Your task to perform on an android device: Go to CNN.com Image 0: 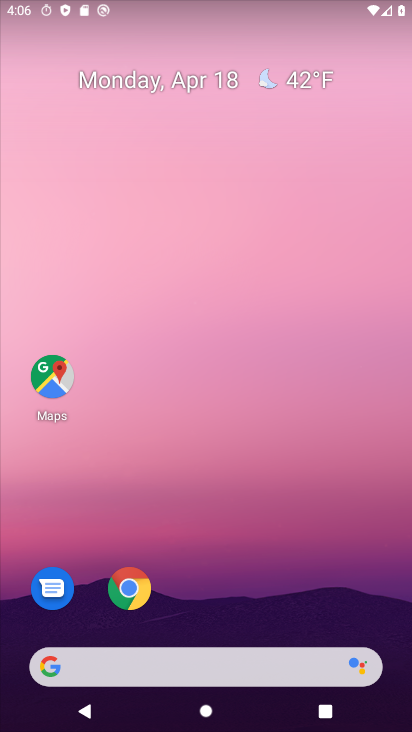
Step 0: click (126, 581)
Your task to perform on an android device: Go to CNN.com Image 1: 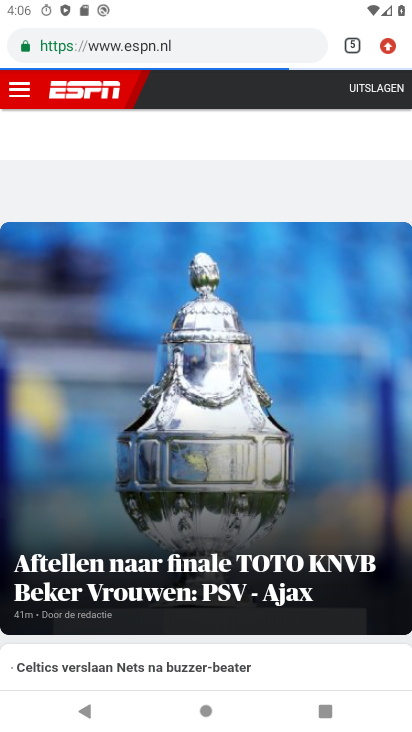
Step 1: click (348, 43)
Your task to perform on an android device: Go to CNN.com Image 2: 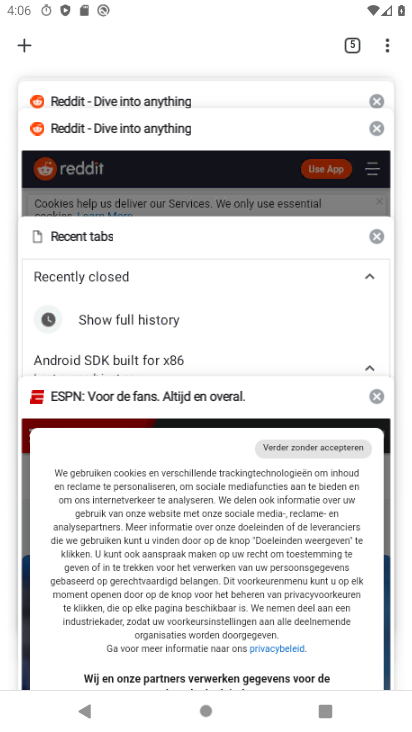
Step 2: click (30, 48)
Your task to perform on an android device: Go to CNN.com Image 3: 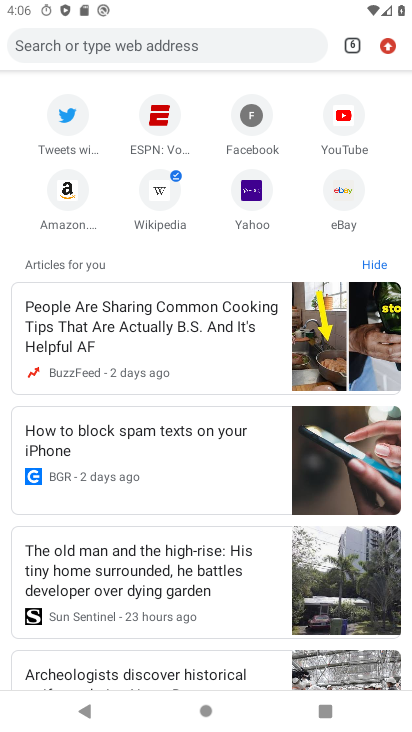
Step 3: click (191, 39)
Your task to perform on an android device: Go to CNN.com Image 4: 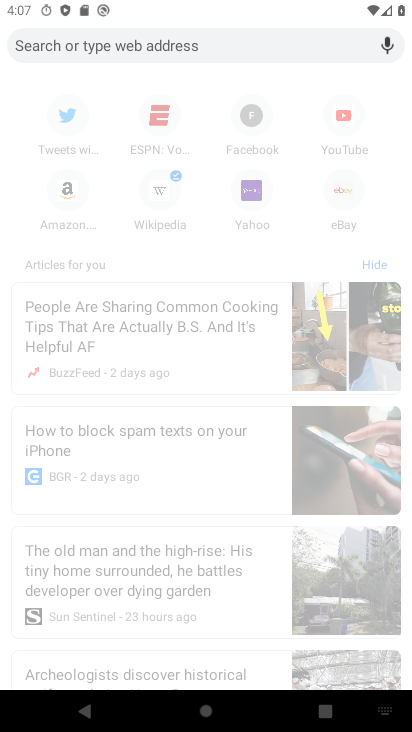
Step 4: type "cnn.com"
Your task to perform on an android device: Go to CNN.com Image 5: 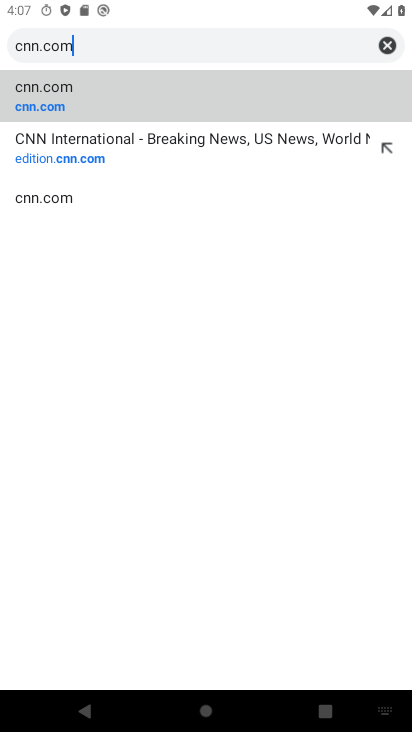
Step 5: click (61, 113)
Your task to perform on an android device: Go to CNN.com Image 6: 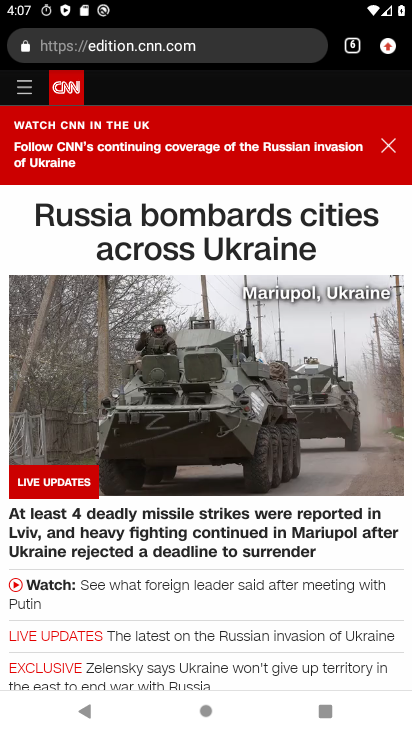
Step 6: task complete